Your task to perform on an android device: Add razer huntsman to the cart on bestbuy, then select checkout. Image 0: 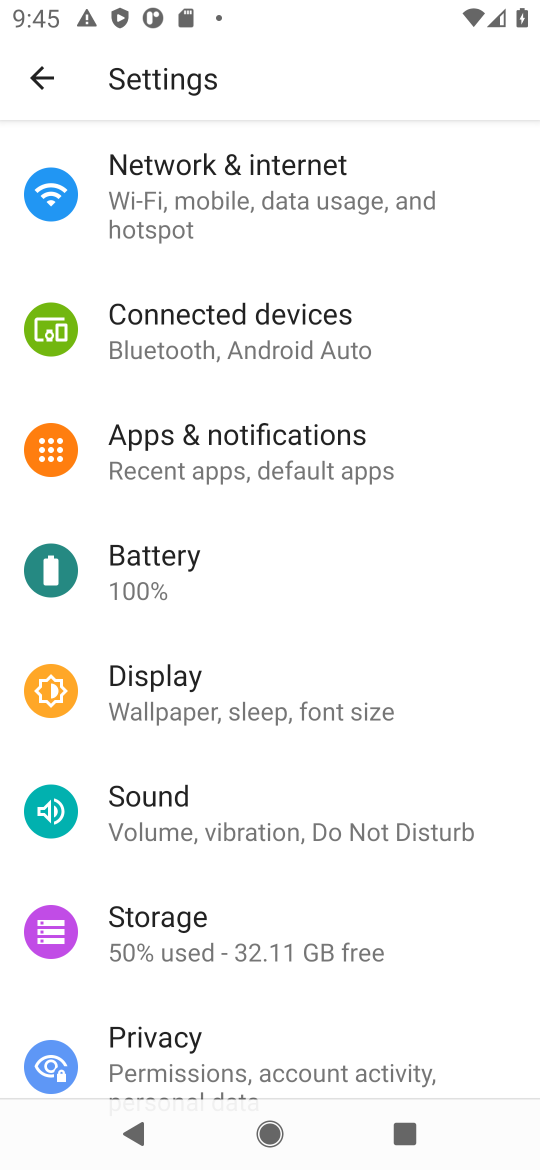
Step 0: press home button
Your task to perform on an android device: Add razer huntsman to the cart on bestbuy, then select checkout. Image 1: 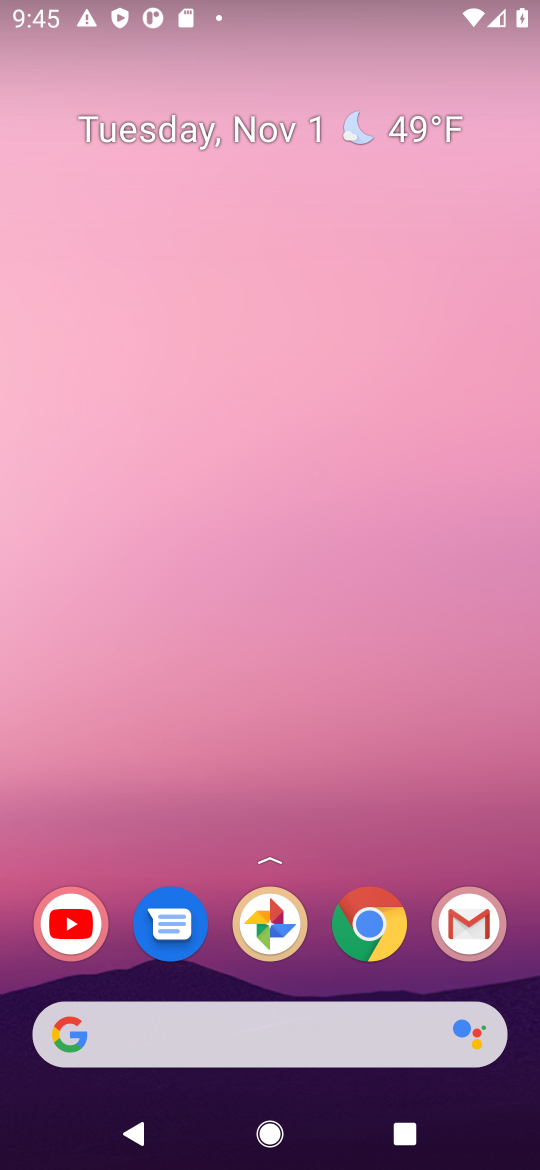
Step 1: click (362, 925)
Your task to perform on an android device: Add razer huntsman to the cart on bestbuy, then select checkout. Image 2: 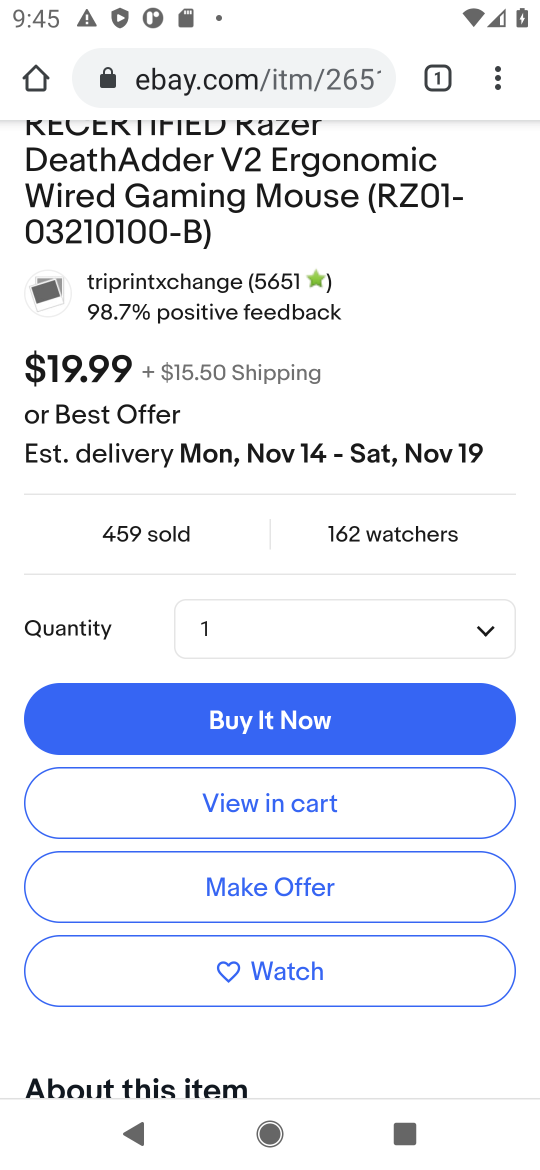
Step 2: click (235, 73)
Your task to perform on an android device: Add razer huntsman to the cart on bestbuy, then select checkout. Image 3: 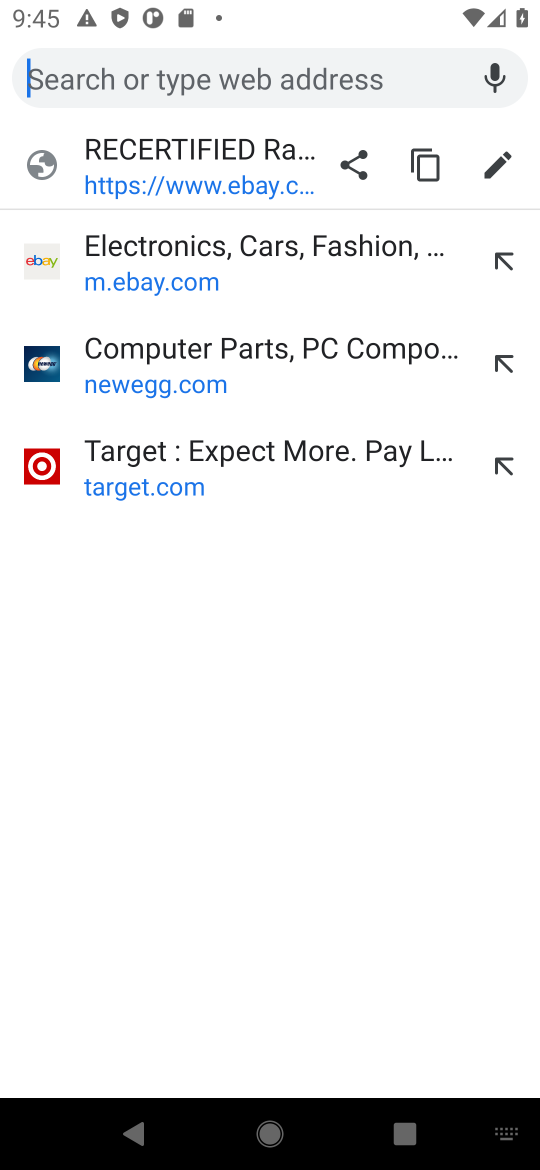
Step 3: type "bestbuy"
Your task to perform on an android device: Add razer huntsman to the cart on bestbuy, then select checkout. Image 4: 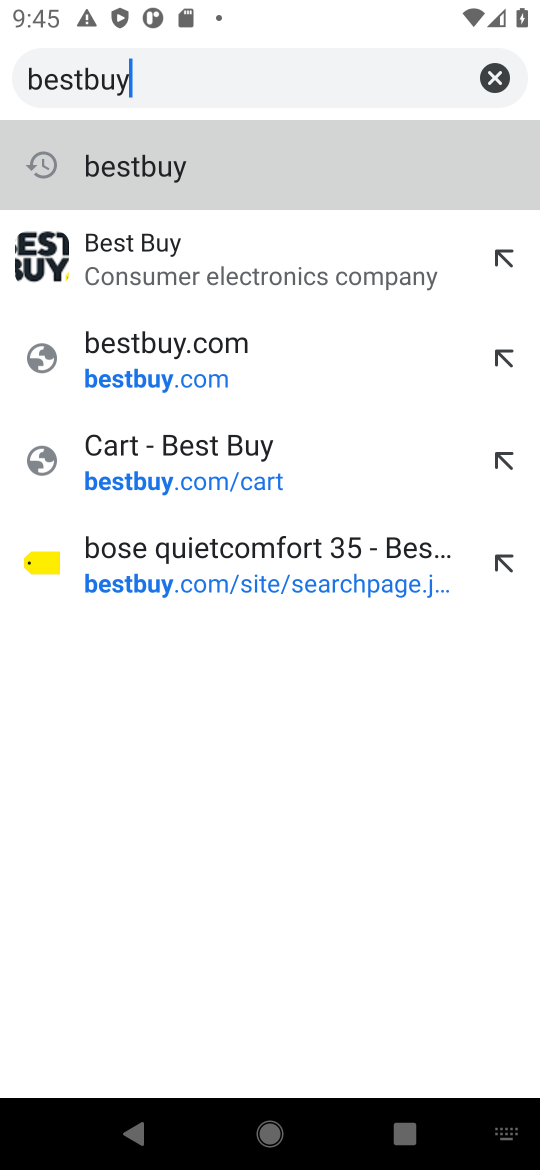
Step 4: click (173, 159)
Your task to perform on an android device: Add razer huntsman to the cart on bestbuy, then select checkout. Image 5: 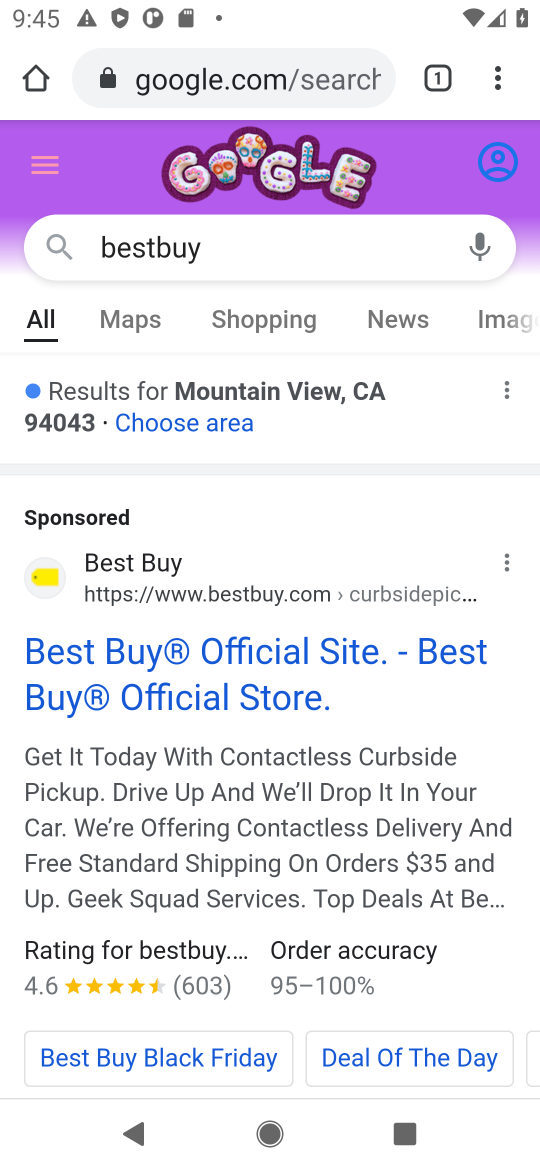
Step 5: click (160, 648)
Your task to perform on an android device: Add razer huntsman to the cart on bestbuy, then select checkout. Image 6: 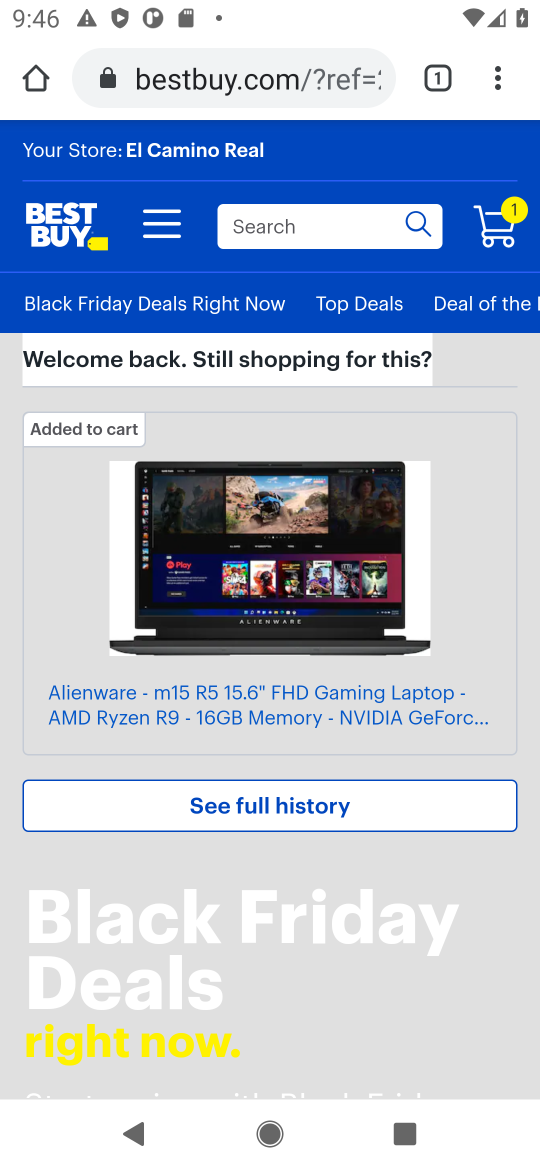
Step 6: click (302, 225)
Your task to perform on an android device: Add razer huntsman to the cart on bestbuy, then select checkout. Image 7: 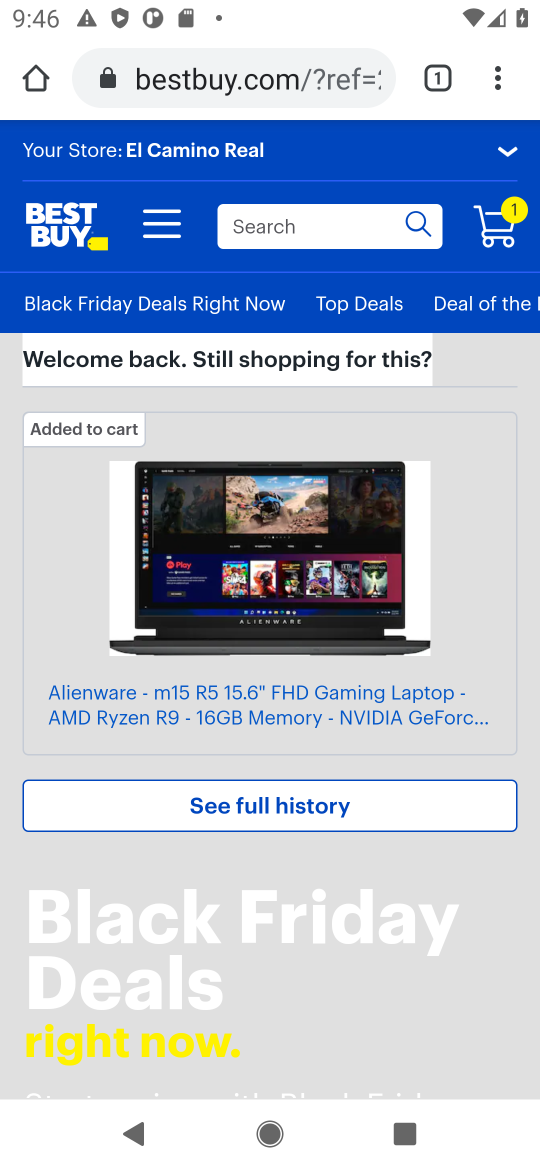
Step 7: click (307, 228)
Your task to perform on an android device: Add razer huntsman to the cart on bestbuy, then select checkout. Image 8: 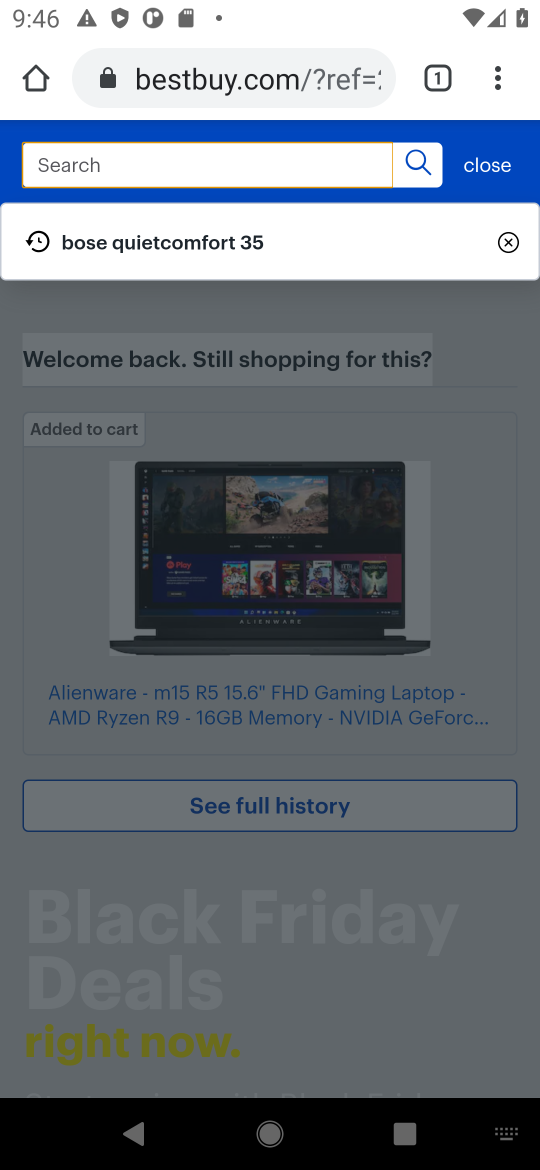
Step 8: type "razer huntsman"
Your task to perform on an android device: Add razer huntsman to the cart on bestbuy, then select checkout. Image 9: 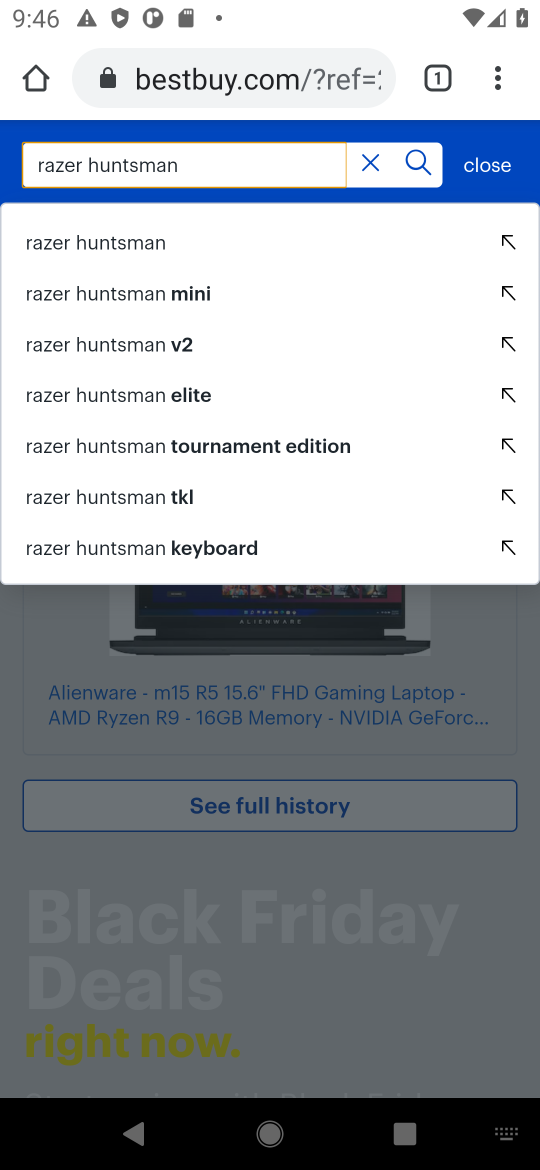
Step 9: press enter
Your task to perform on an android device: Add razer huntsman to the cart on bestbuy, then select checkout. Image 10: 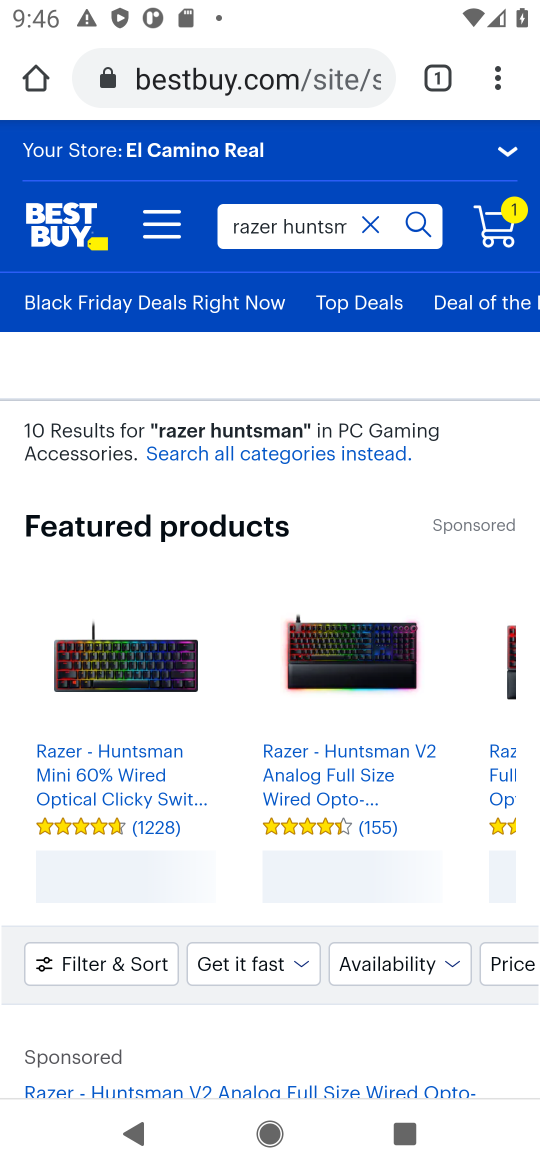
Step 10: drag from (223, 885) to (351, 435)
Your task to perform on an android device: Add razer huntsman to the cart on bestbuy, then select checkout. Image 11: 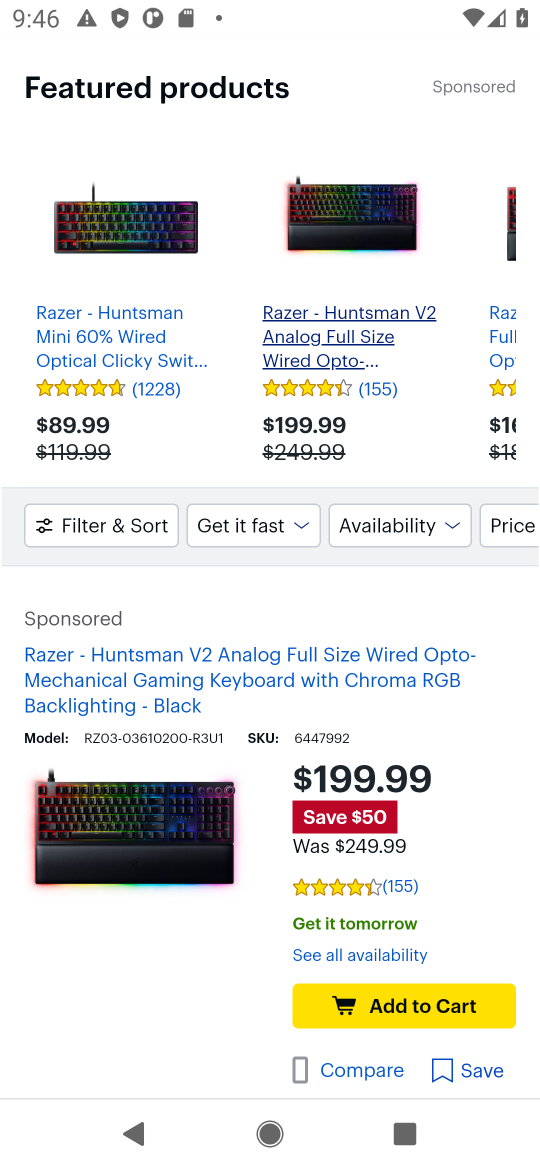
Step 11: click (174, 682)
Your task to perform on an android device: Add razer huntsman to the cart on bestbuy, then select checkout. Image 12: 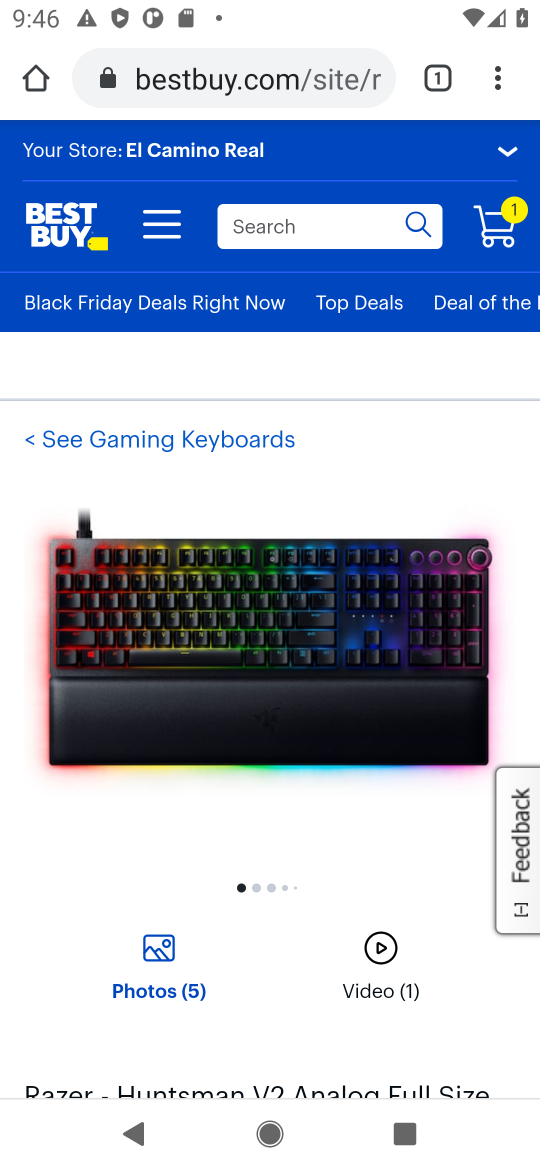
Step 12: drag from (74, 1019) to (130, 660)
Your task to perform on an android device: Add razer huntsman to the cart on bestbuy, then select checkout. Image 13: 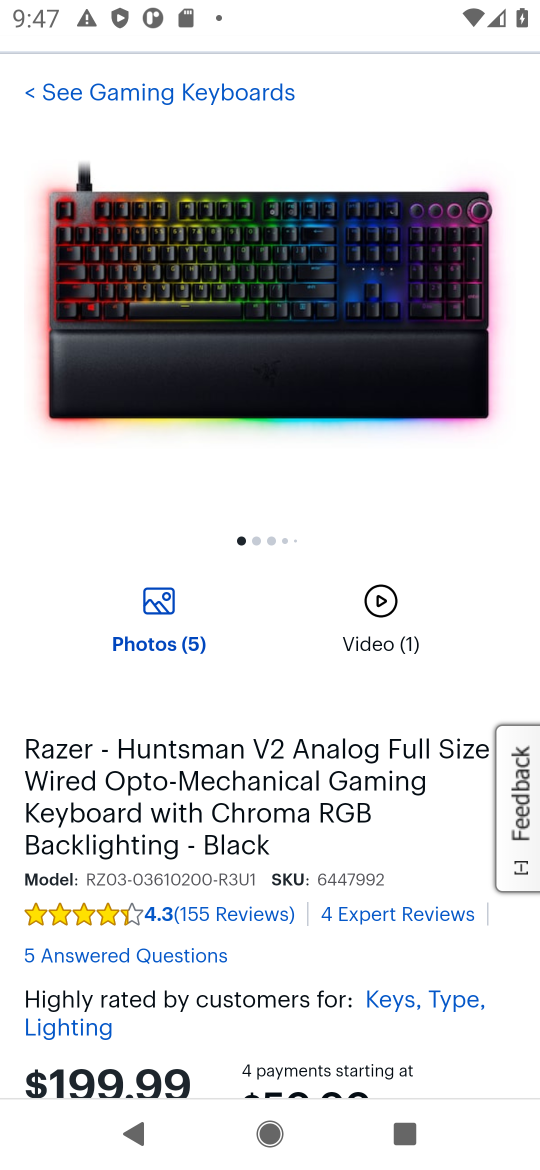
Step 13: drag from (252, 912) to (293, 508)
Your task to perform on an android device: Add razer huntsman to the cart on bestbuy, then select checkout. Image 14: 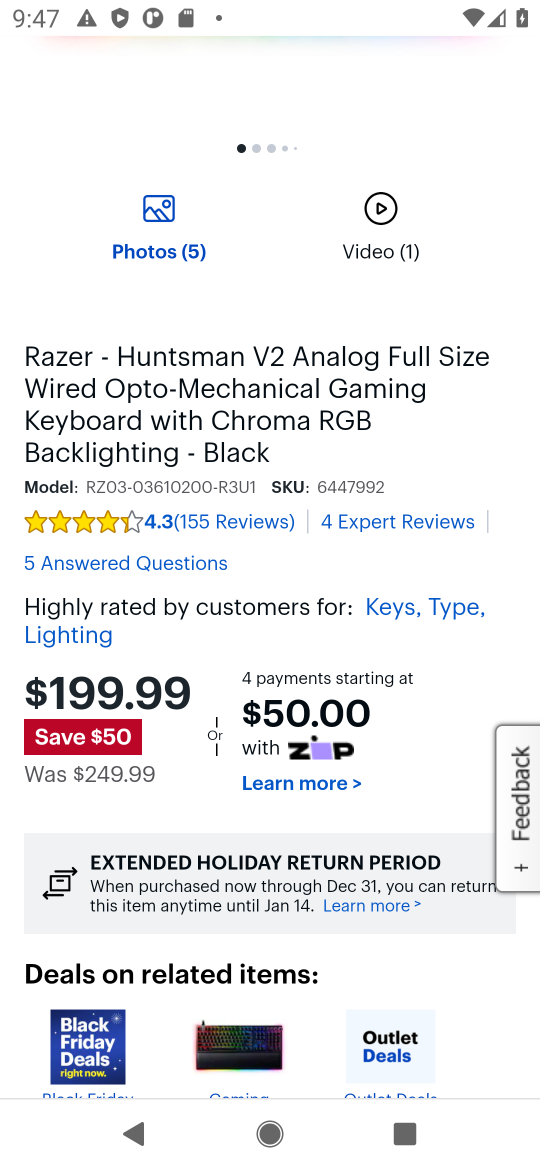
Step 14: drag from (159, 951) to (210, 183)
Your task to perform on an android device: Add razer huntsman to the cart on bestbuy, then select checkout. Image 15: 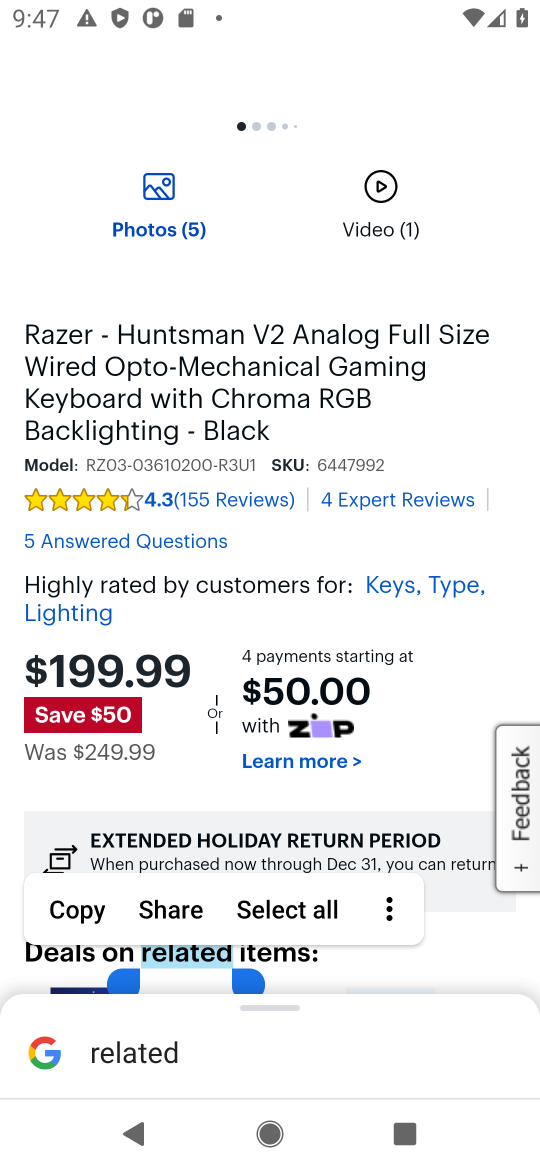
Step 15: click (443, 763)
Your task to perform on an android device: Add razer huntsman to the cart on bestbuy, then select checkout. Image 16: 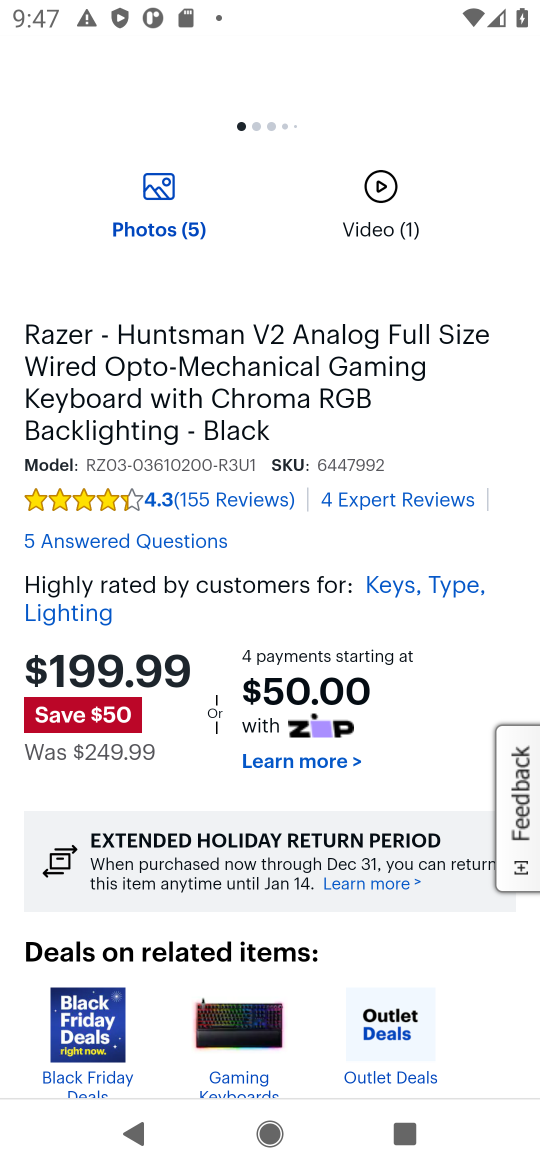
Step 16: drag from (371, 841) to (328, 70)
Your task to perform on an android device: Add razer huntsman to the cart on bestbuy, then select checkout. Image 17: 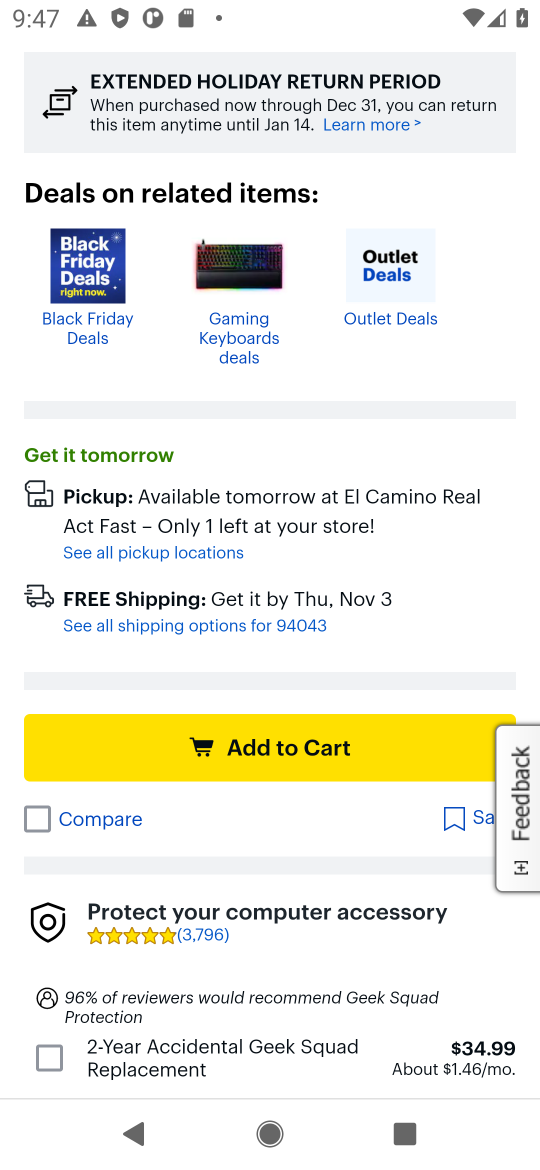
Step 17: click (245, 746)
Your task to perform on an android device: Add razer huntsman to the cart on bestbuy, then select checkout. Image 18: 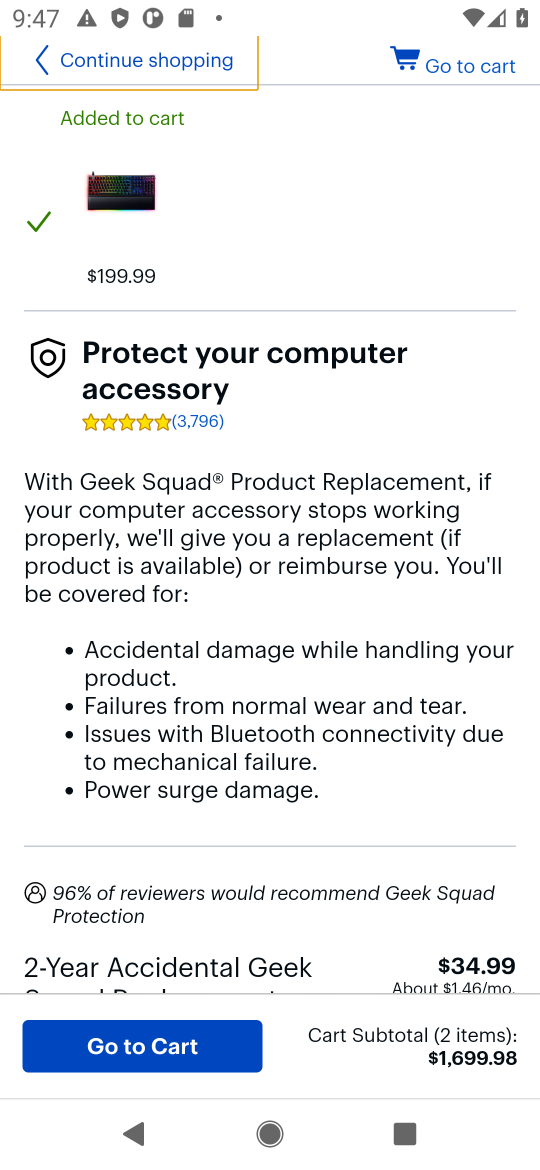
Step 18: click (146, 1049)
Your task to perform on an android device: Add razer huntsman to the cart on bestbuy, then select checkout. Image 19: 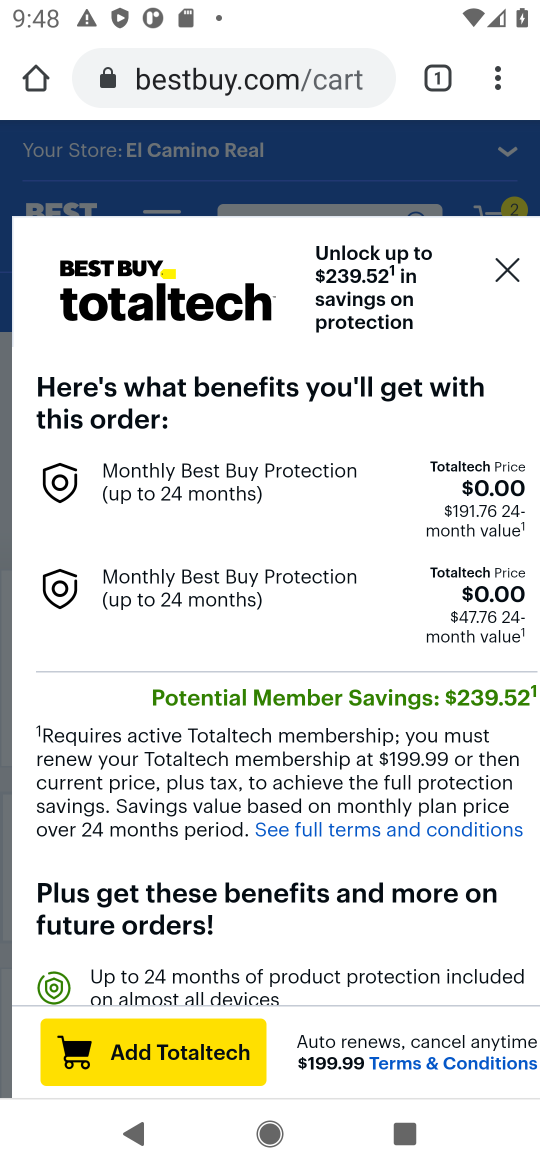
Step 19: click (505, 269)
Your task to perform on an android device: Add razer huntsman to the cart on bestbuy, then select checkout. Image 20: 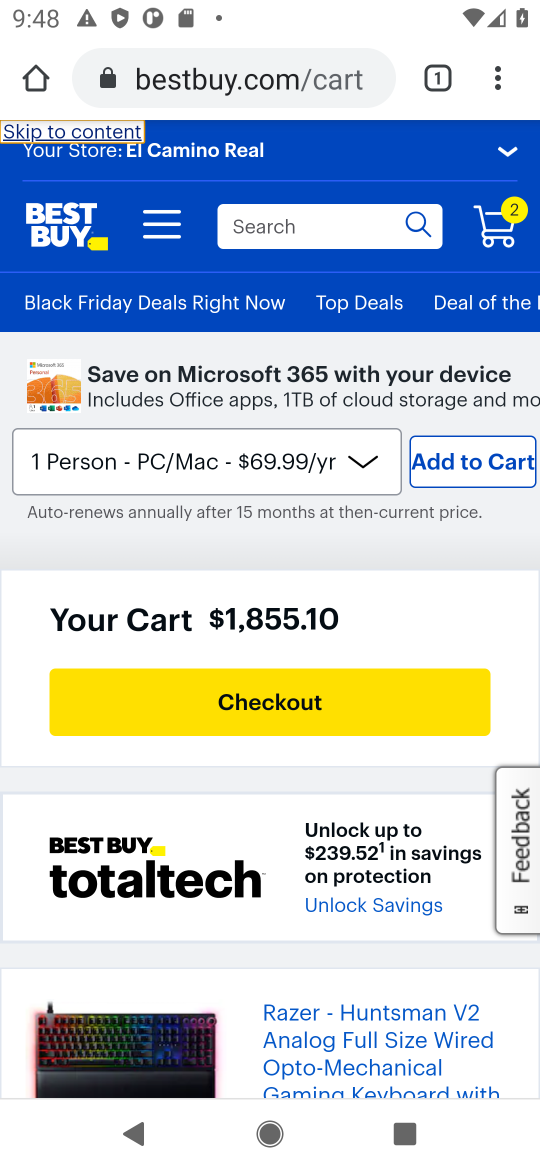
Step 20: click (496, 228)
Your task to perform on an android device: Add razer huntsman to the cart on bestbuy, then select checkout. Image 21: 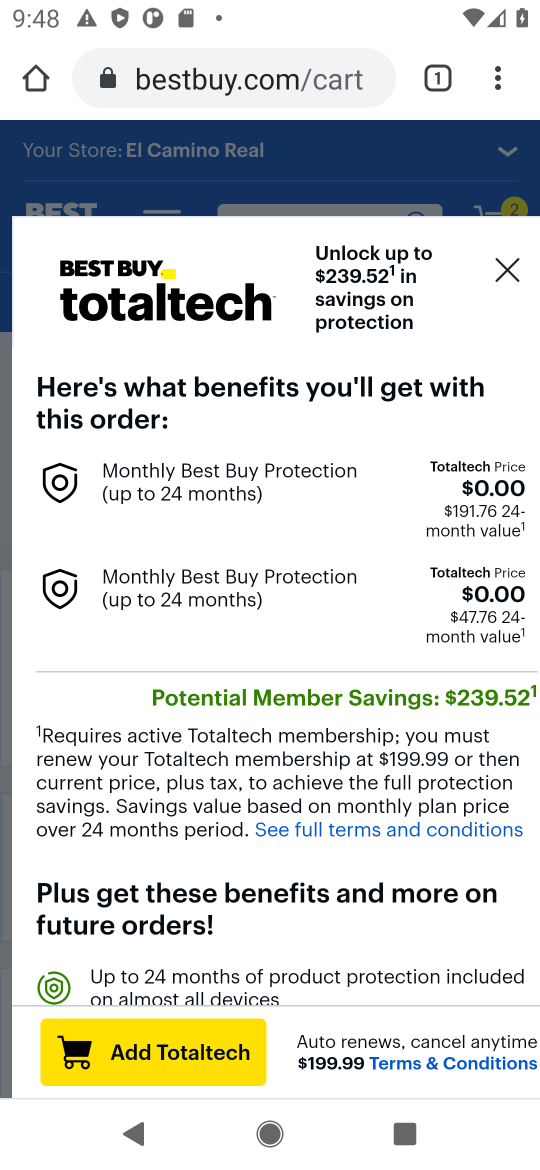
Step 21: click (510, 273)
Your task to perform on an android device: Add razer huntsman to the cart on bestbuy, then select checkout. Image 22: 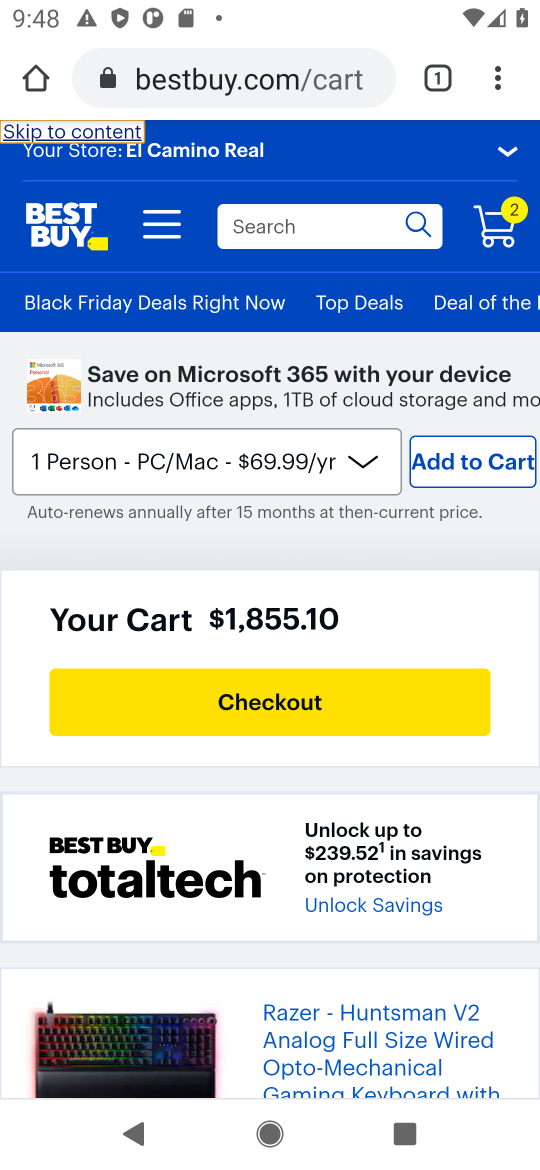
Step 22: click (263, 709)
Your task to perform on an android device: Add razer huntsman to the cart on bestbuy, then select checkout. Image 23: 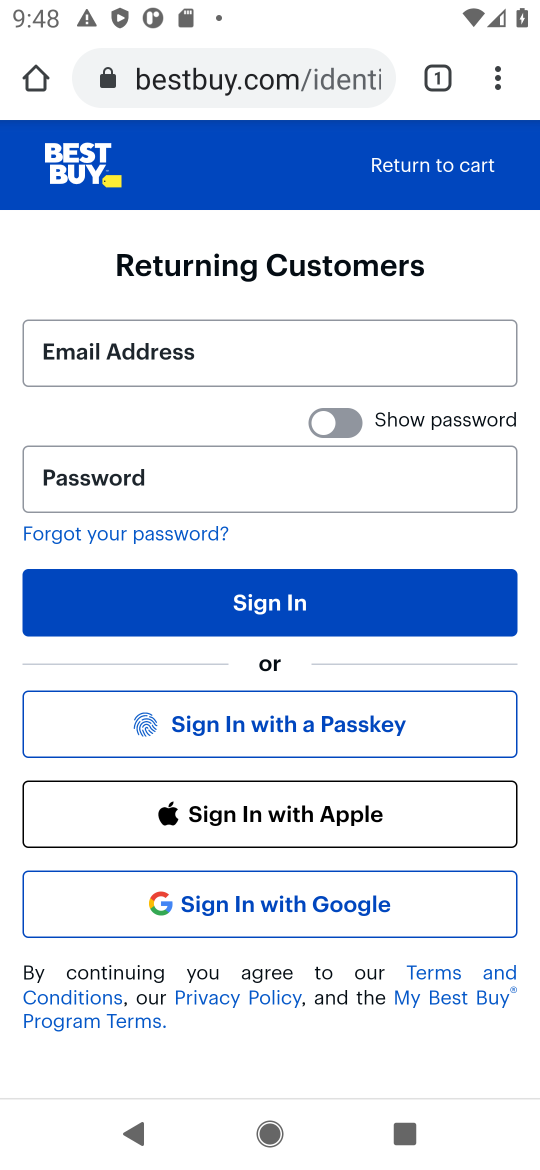
Step 23: task complete